Your task to perform on an android device: turn on data saver in the chrome app Image 0: 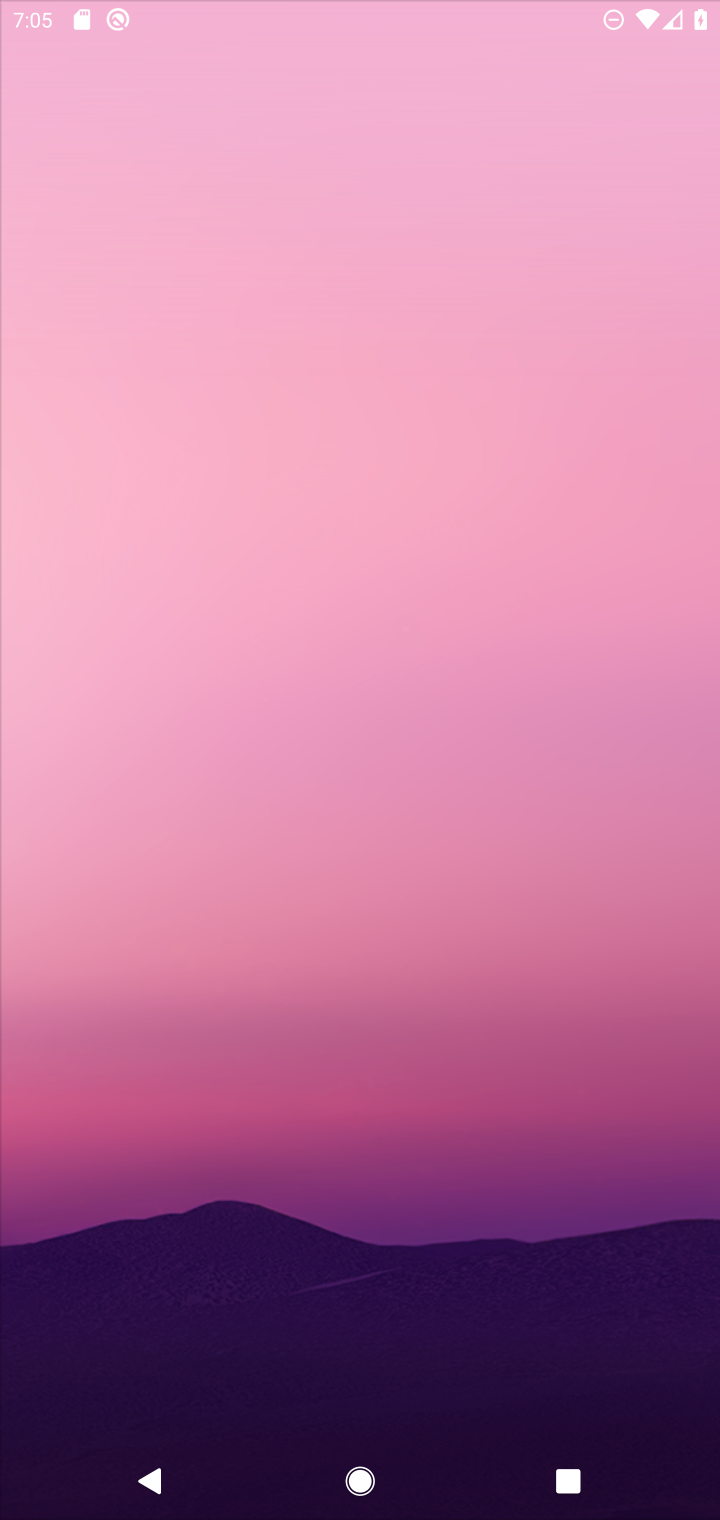
Step 0: press home button
Your task to perform on an android device: turn on data saver in the chrome app Image 1: 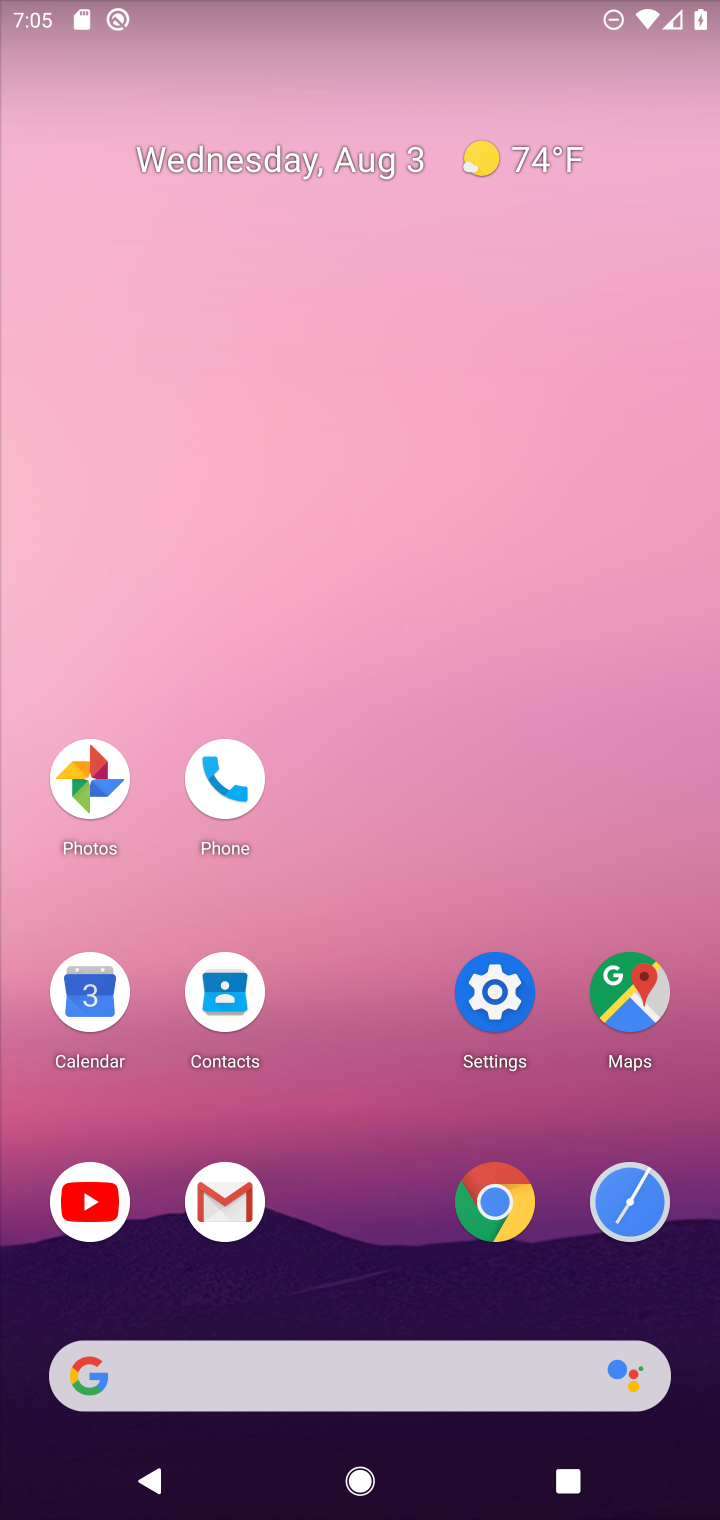
Step 1: click (488, 1202)
Your task to perform on an android device: turn on data saver in the chrome app Image 2: 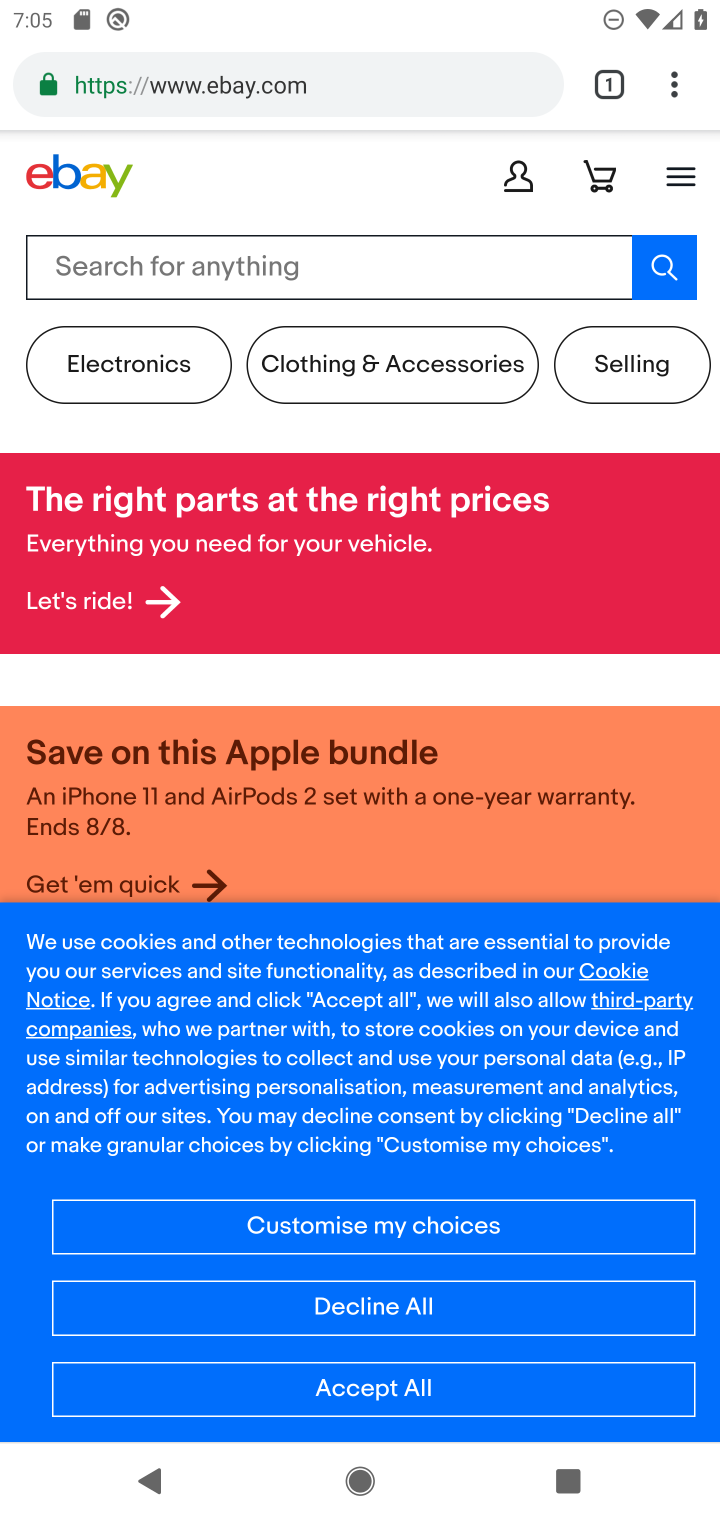
Step 2: click (673, 83)
Your task to perform on an android device: turn on data saver in the chrome app Image 3: 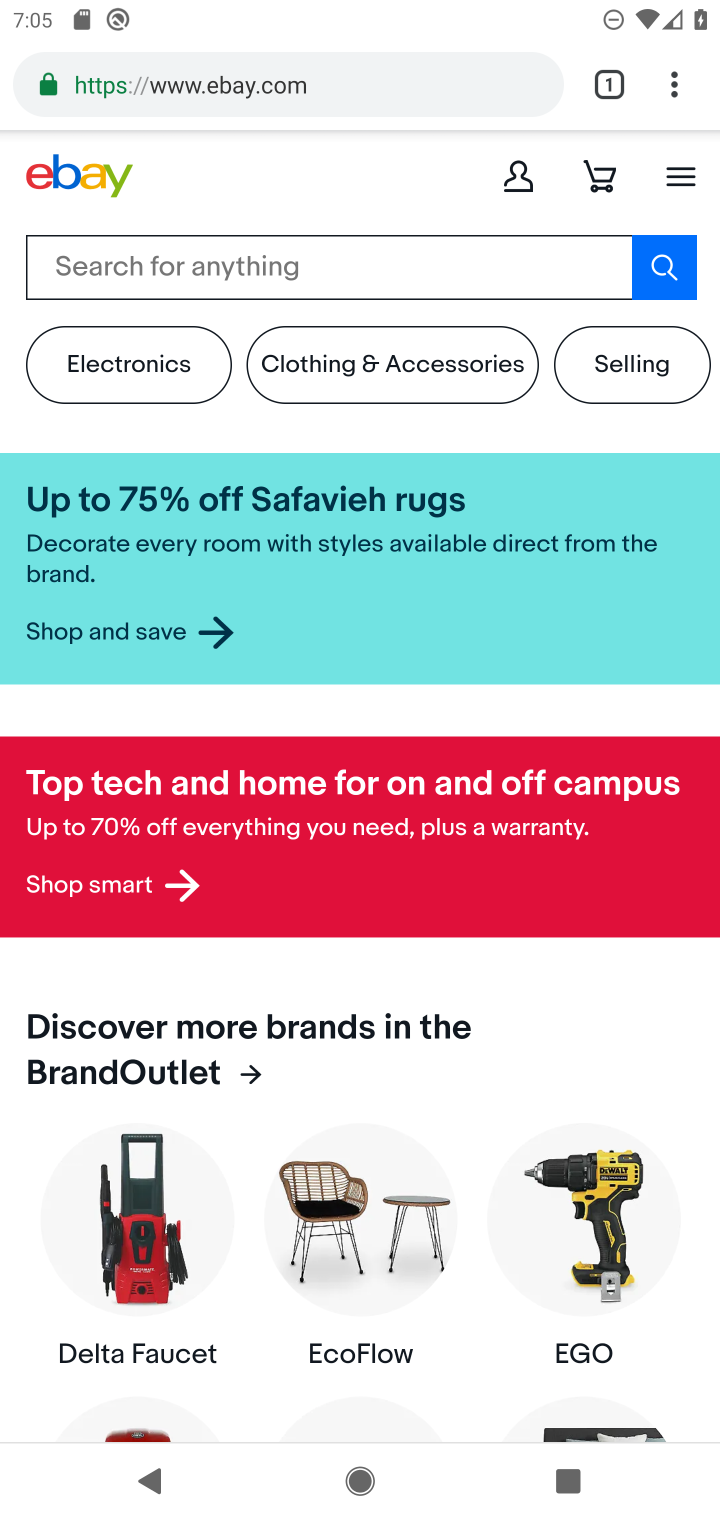
Step 3: click (684, 84)
Your task to perform on an android device: turn on data saver in the chrome app Image 4: 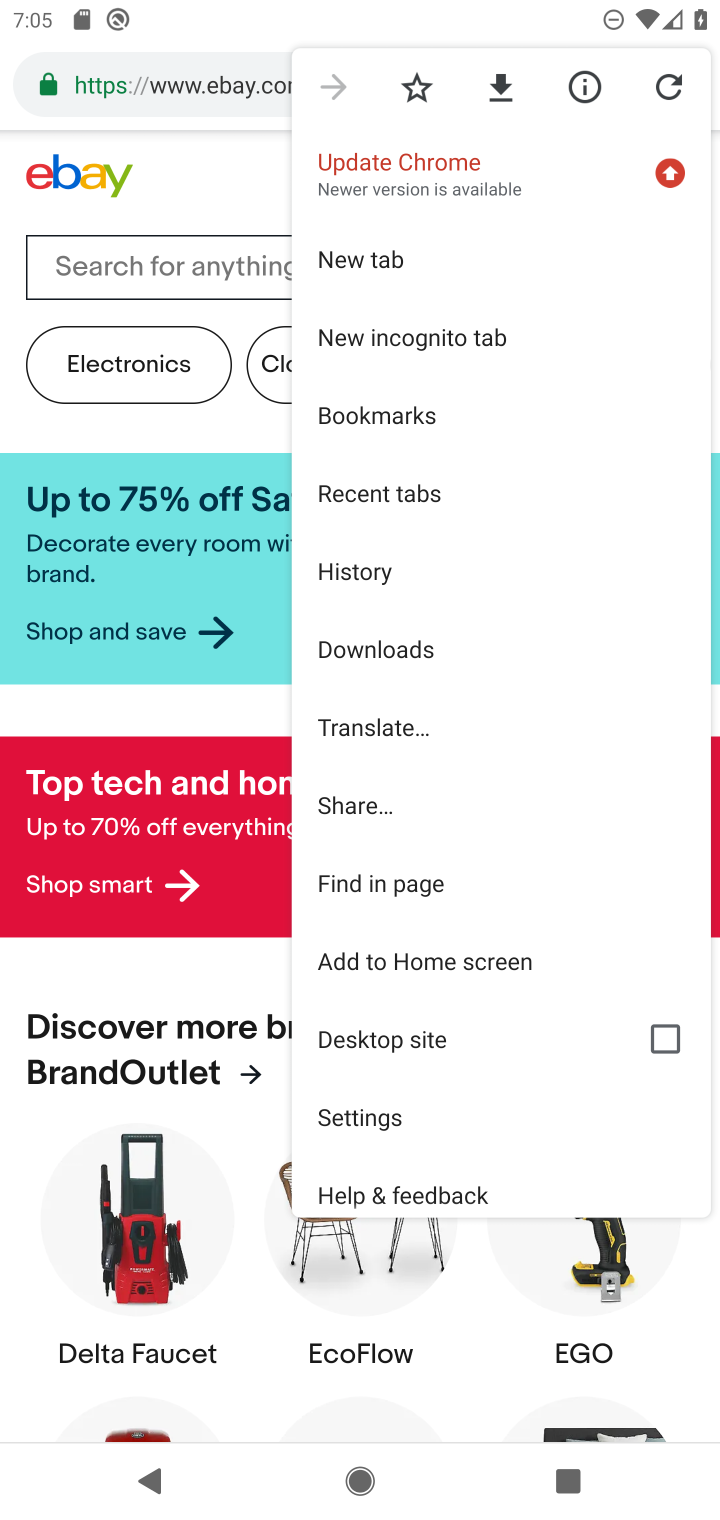
Step 4: click (380, 1110)
Your task to perform on an android device: turn on data saver in the chrome app Image 5: 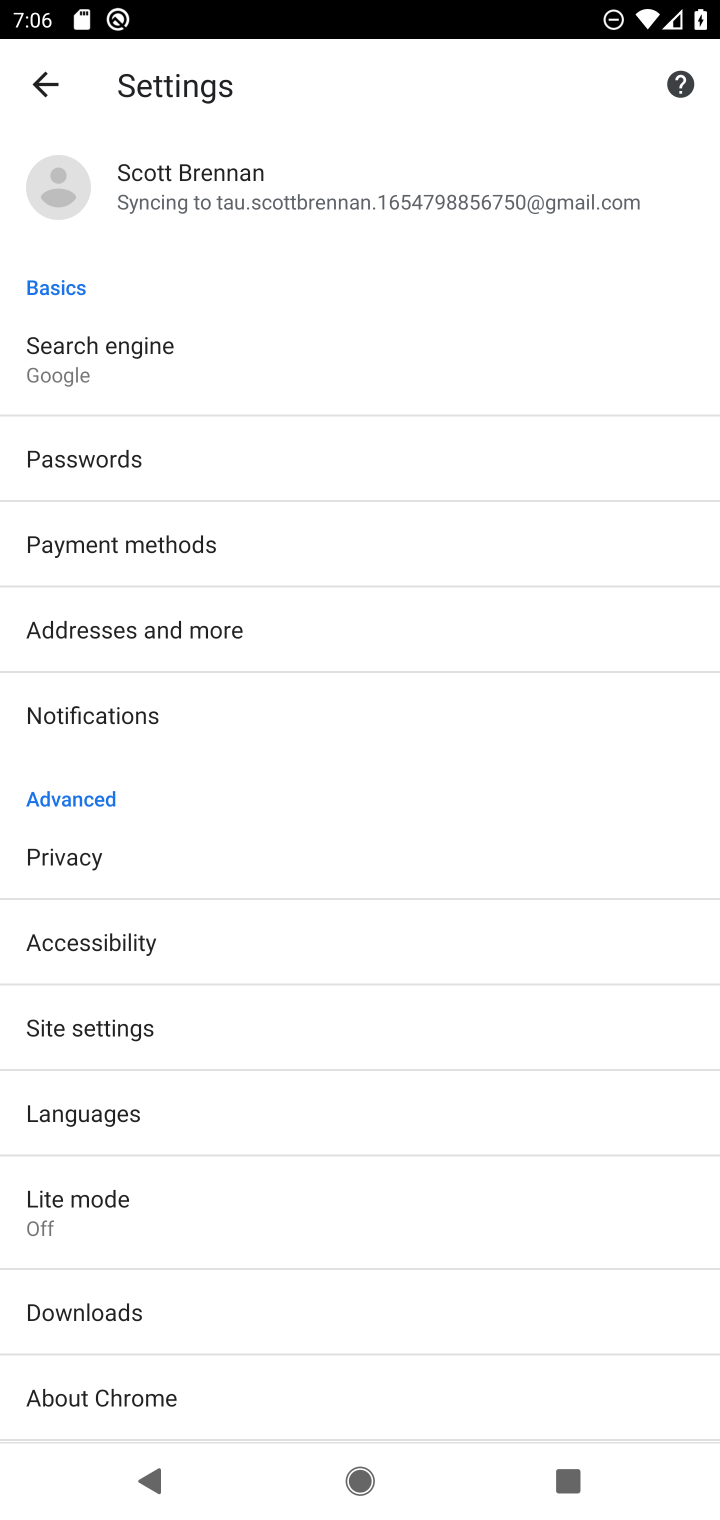
Step 5: click (109, 1202)
Your task to perform on an android device: turn on data saver in the chrome app Image 6: 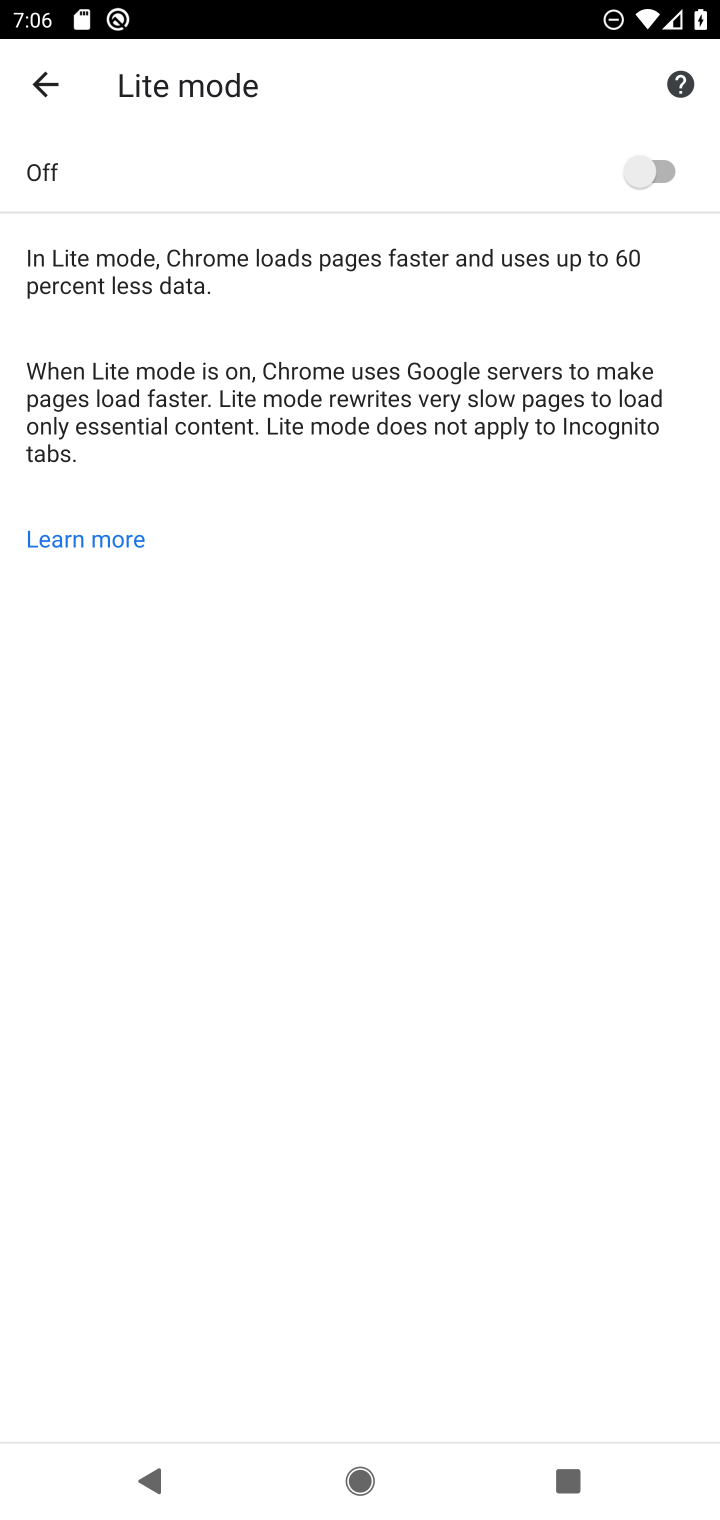
Step 6: click (632, 160)
Your task to perform on an android device: turn on data saver in the chrome app Image 7: 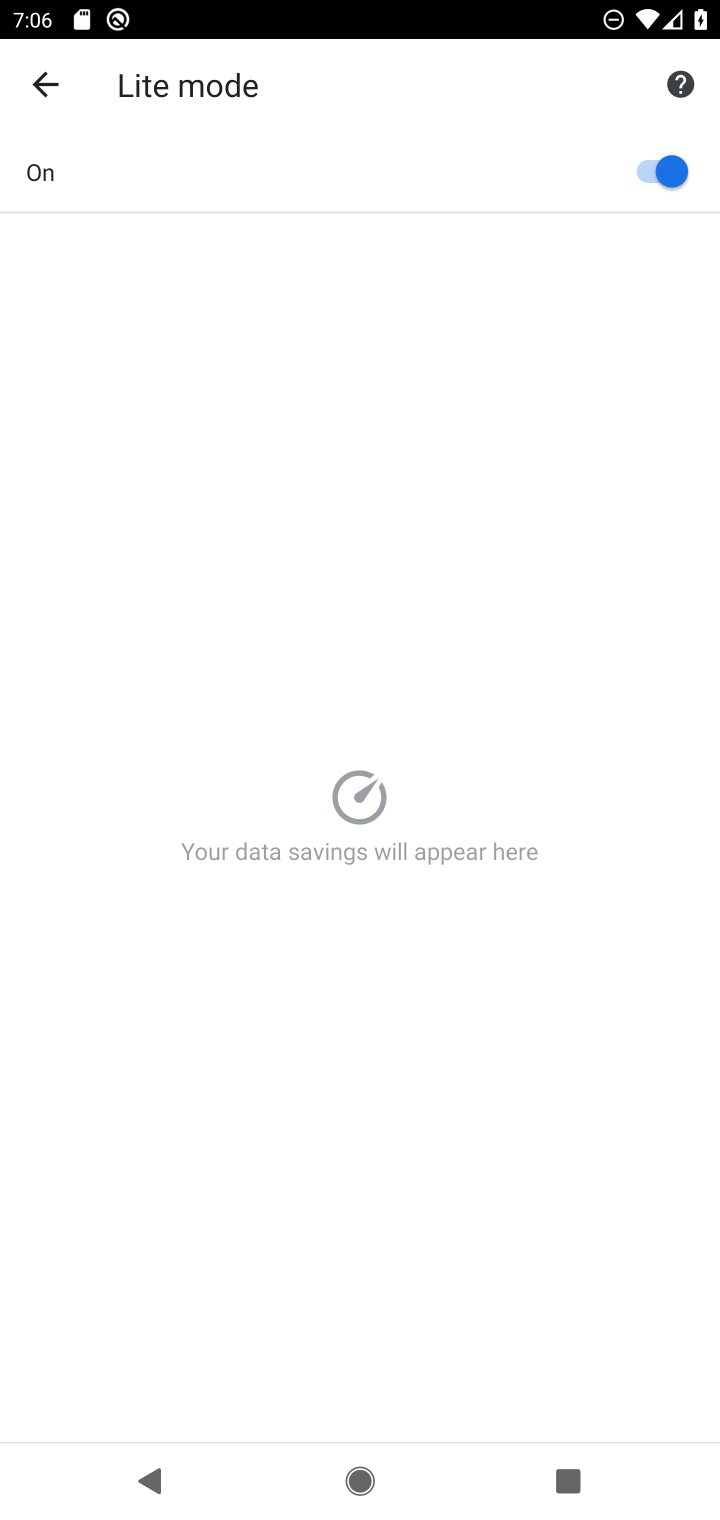
Step 7: task complete